Your task to perform on an android device: Toggle the flashlight Image 0: 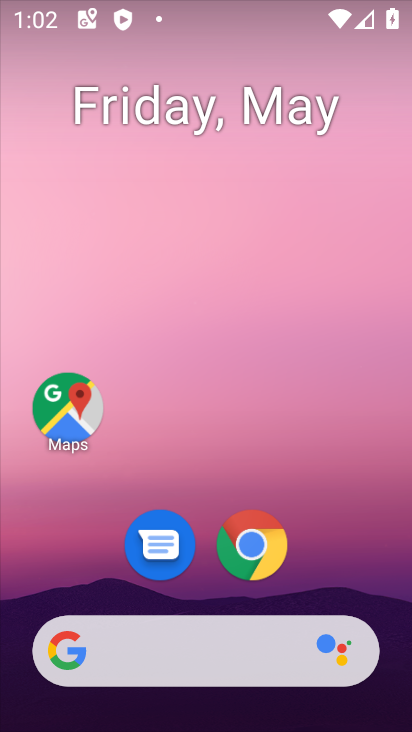
Step 0: drag from (343, 593) to (253, 5)
Your task to perform on an android device: Toggle the flashlight Image 1: 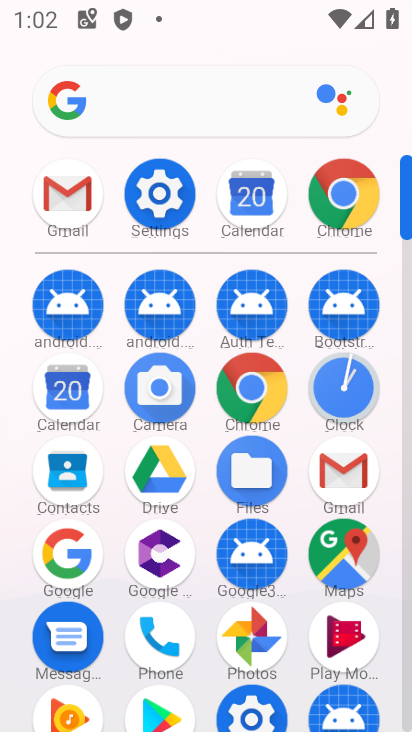
Step 1: click (157, 172)
Your task to perform on an android device: Toggle the flashlight Image 2: 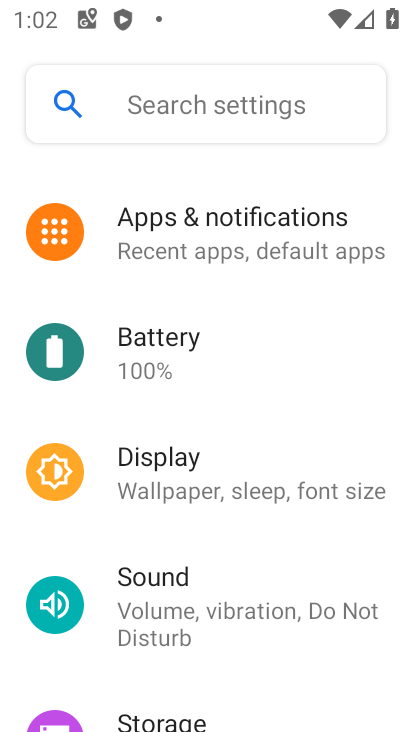
Step 2: drag from (275, 550) to (292, 270)
Your task to perform on an android device: Toggle the flashlight Image 3: 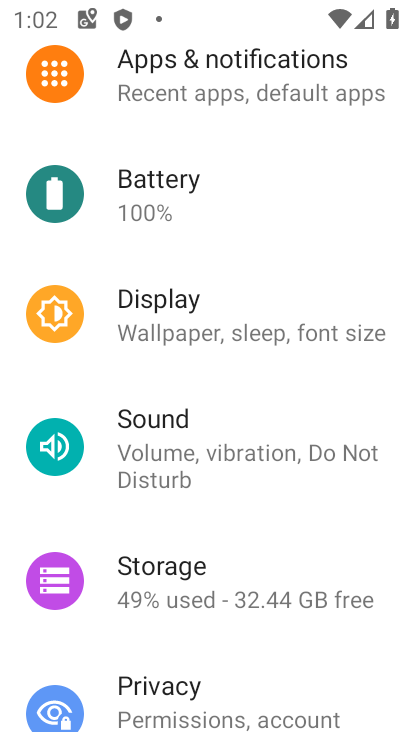
Step 3: drag from (278, 645) to (303, 250)
Your task to perform on an android device: Toggle the flashlight Image 4: 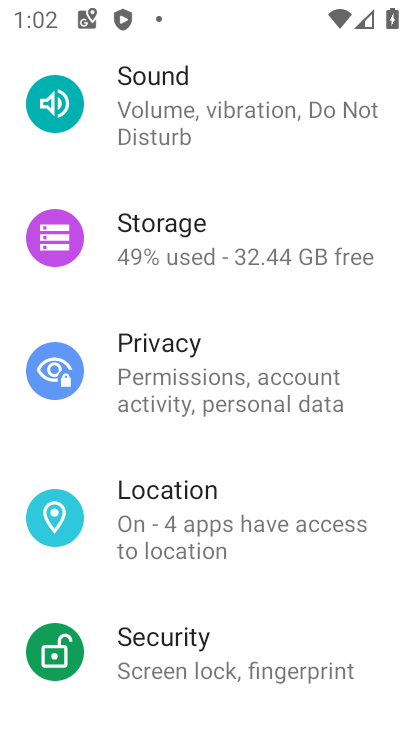
Step 4: drag from (317, 152) to (264, 611)
Your task to perform on an android device: Toggle the flashlight Image 5: 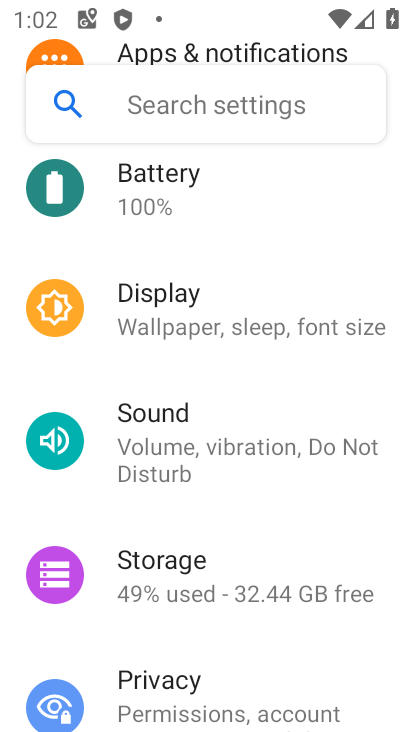
Step 5: drag from (248, 216) to (282, 501)
Your task to perform on an android device: Toggle the flashlight Image 6: 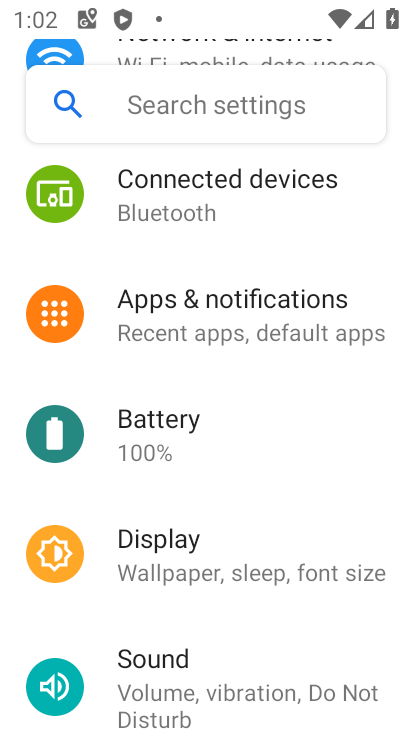
Step 6: click (271, 342)
Your task to perform on an android device: Toggle the flashlight Image 7: 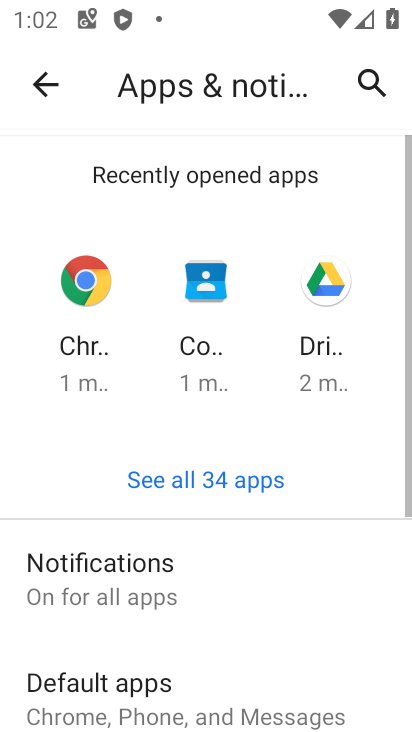
Step 7: drag from (300, 624) to (325, 265)
Your task to perform on an android device: Toggle the flashlight Image 8: 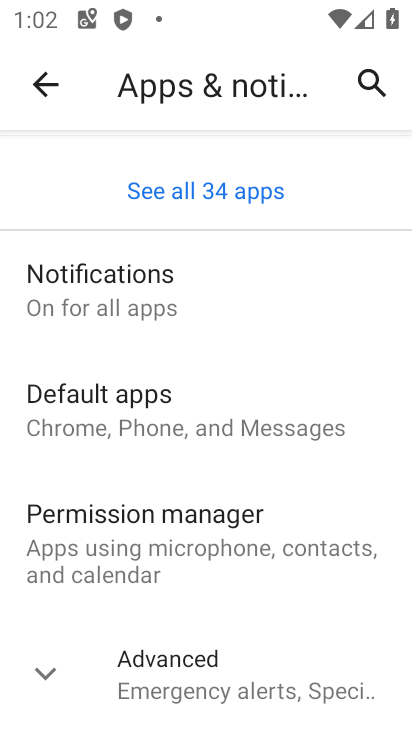
Step 8: click (245, 685)
Your task to perform on an android device: Toggle the flashlight Image 9: 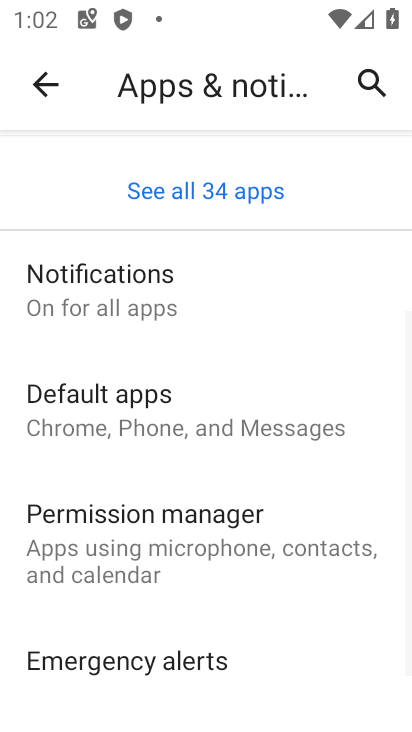
Step 9: drag from (261, 638) to (270, 182)
Your task to perform on an android device: Toggle the flashlight Image 10: 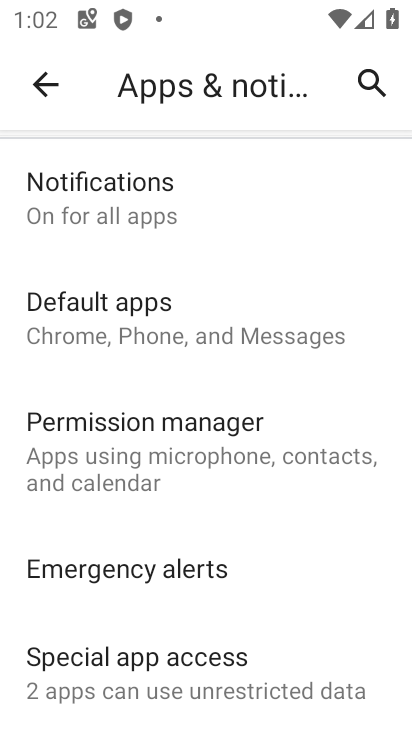
Step 10: click (184, 663)
Your task to perform on an android device: Toggle the flashlight Image 11: 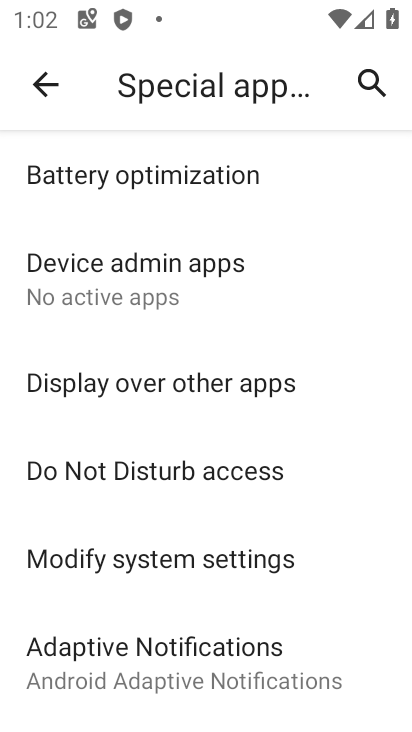
Step 11: task complete